Your task to perform on an android device: change text size in settings app Image 0: 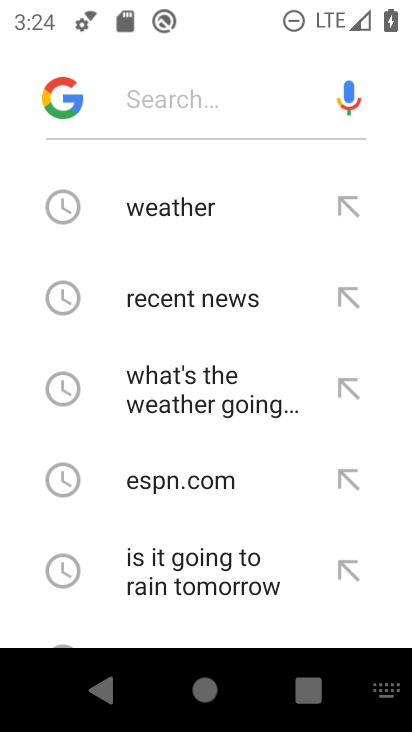
Step 0: press home button
Your task to perform on an android device: change text size in settings app Image 1: 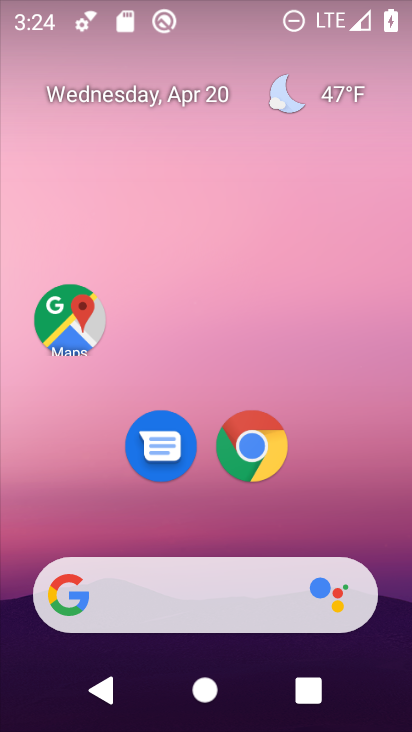
Step 1: drag from (324, 502) to (277, 33)
Your task to perform on an android device: change text size in settings app Image 2: 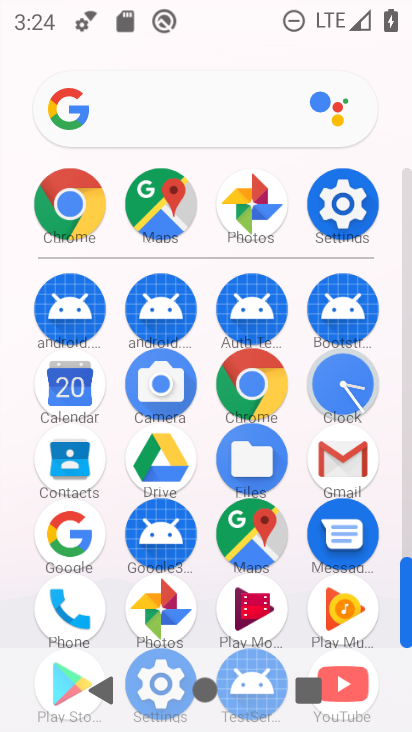
Step 2: click (343, 205)
Your task to perform on an android device: change text size in settings app Image 3: 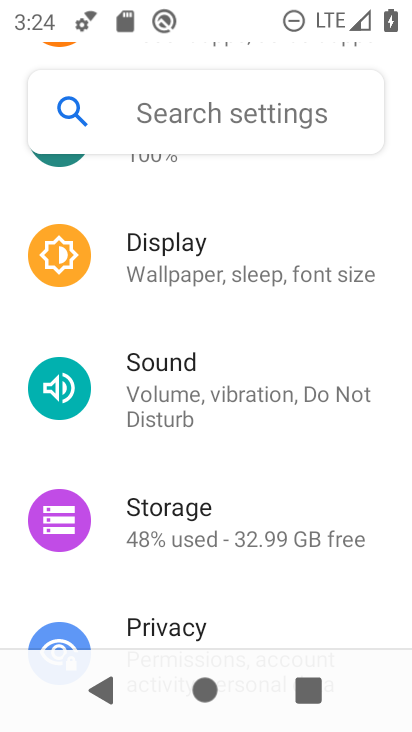
Step 3: drag from (216, 483) to (232, 338)
Your task to perform on an android device: change text size in settings app Image 4: 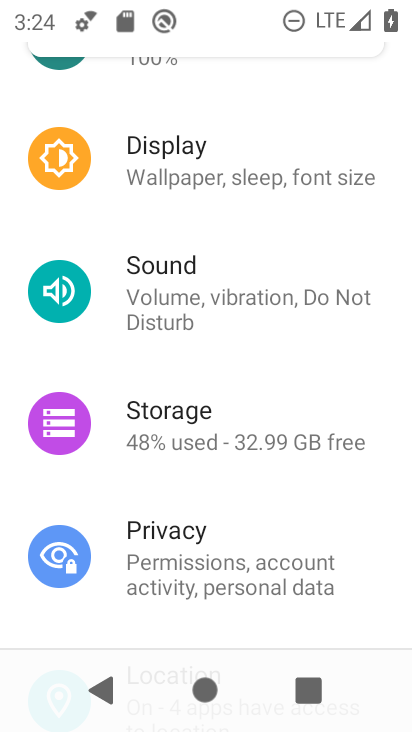
Step 4: drag from (245, 521) to (267, 373)
Your task to perform on an android device: change text size in settings app Image 5: 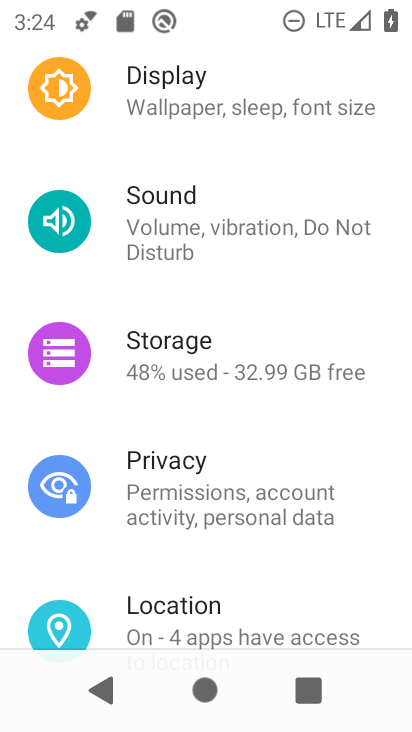
Step 5: drag from (233, 557) to (245, 354)
Your task to perform on an android device: change text size in settings app Image 6: 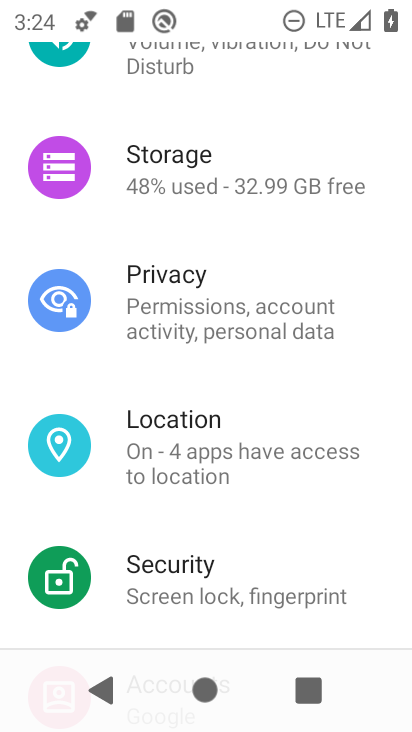
Step 6: drag from (258, 426) to (259, 244)
Your task to perform on an android device: change text size in settings app Image 7: 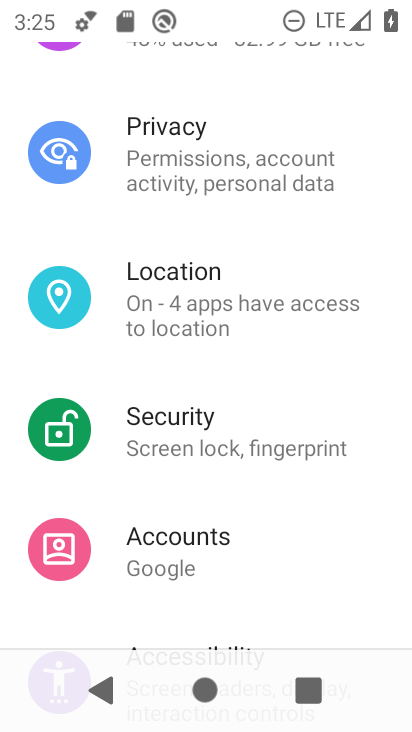
Step 7: drag from (236, 376) to (258, 238)
Your task to perform on an android device: change text size in settings app Image 8: 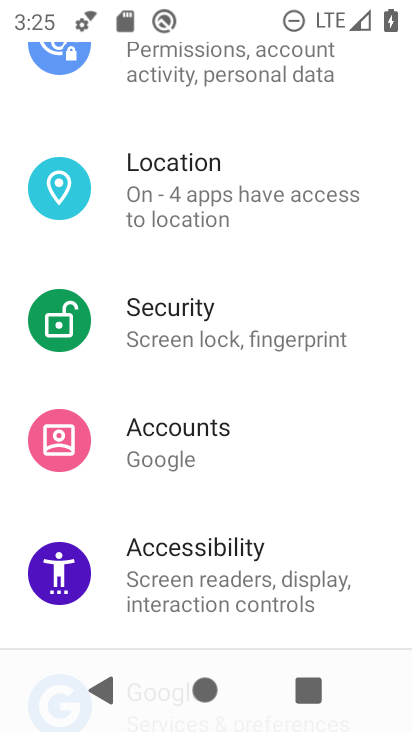
Step 8: drag from (244, 387) to (256, 225)
Your task to perform on an android device: change text size in settings app Image 9: 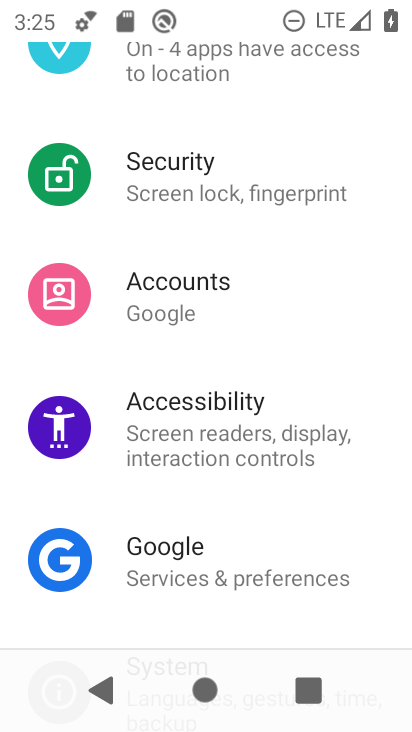
Step 9: drag from (224, 366) to (250, 231)
Your task to perform on an android device: change text size in settings app Image 10: 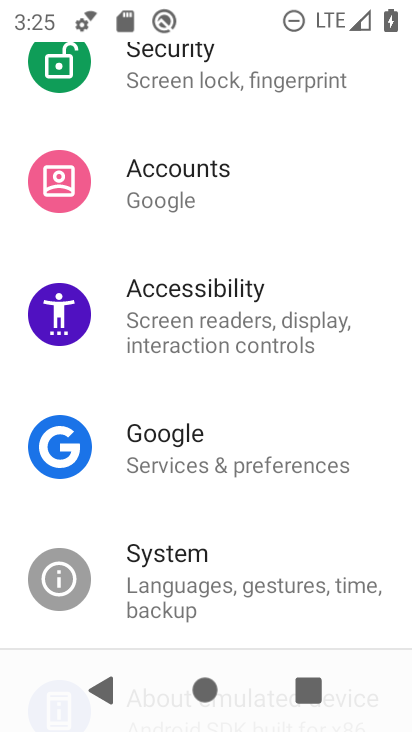
Step 10: drag from (235, 404) to (284, 246)
Your task to perform on an android device: change text size in settings app Image 11: 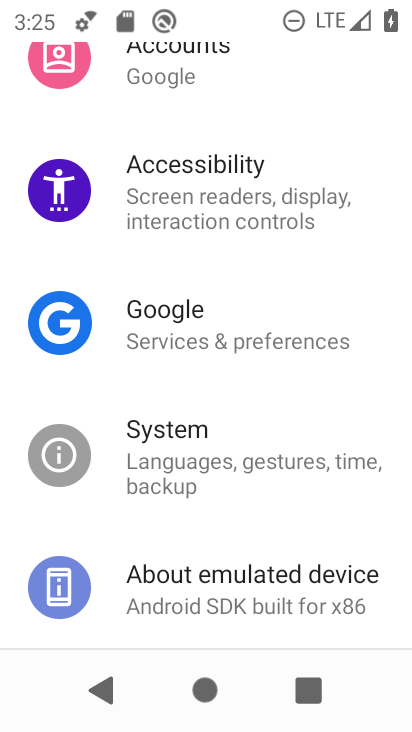
Step 11: click (223, 181)
Your task to perform on an android device: change text size in settings app Image 12: 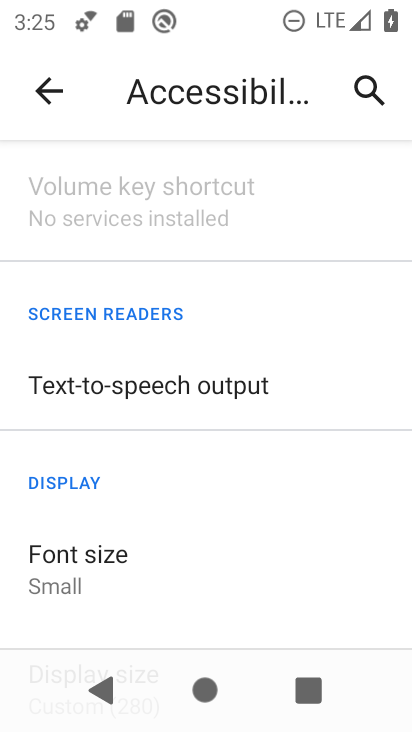
Step 12: click (109, 562)
Your task to perform on an android device: change text size in settings app Image 13: 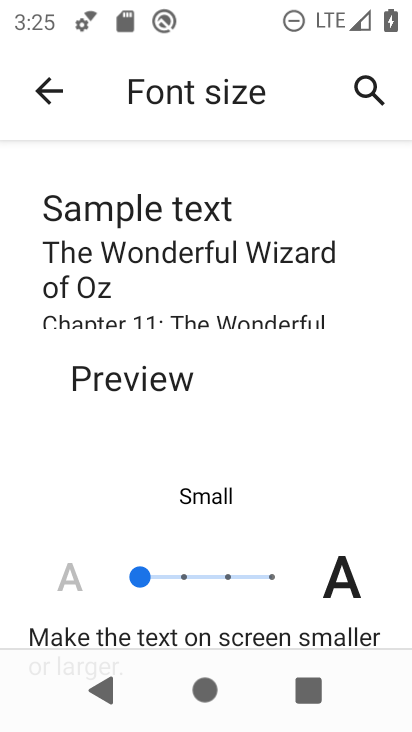
Step 13: click (187, 577)
Your task to perform on an android device: change text size in settings app Image 14: 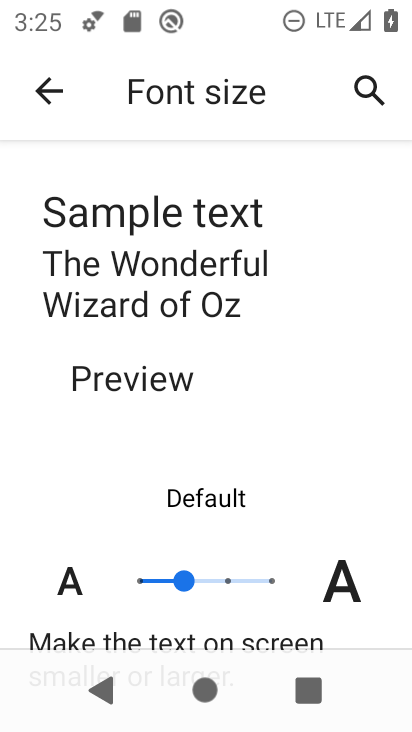
Step 14: task complete